Your task to perform on an android device: Go to battery settings Image 0: 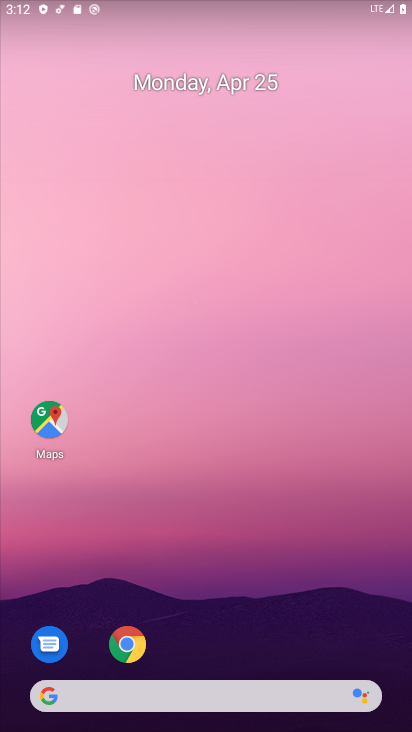
Step 0: drag from (238, 634) to (228, 148)
Your task to perform on an android device: Go to battery settings Image 1: 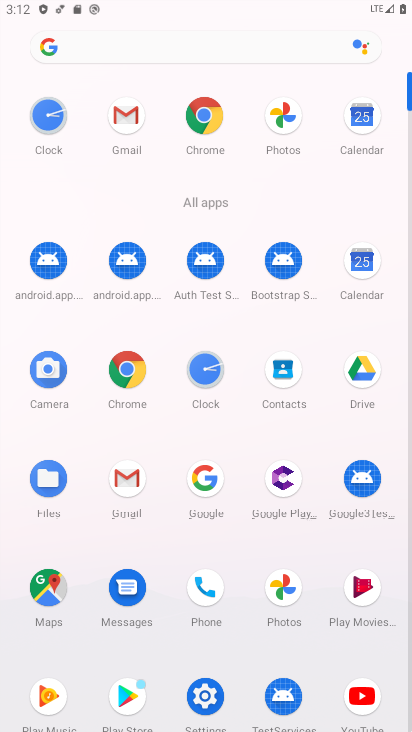
Step 1: click (204, 693)
Your task to perform on an android device: Go to battery settings Image 2: 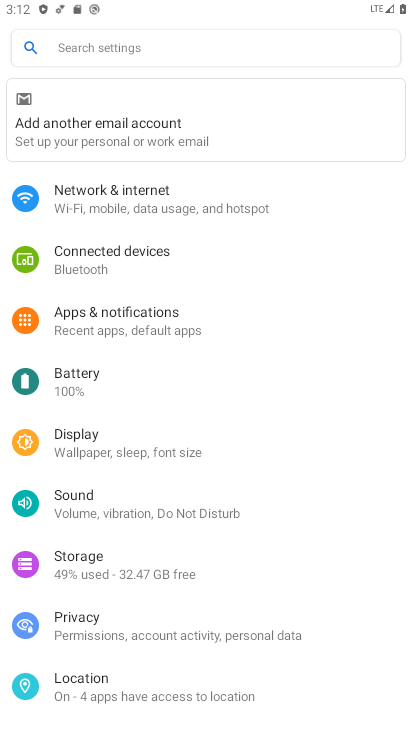
Step 2: click (114, 386)
Your task to perform on an android device: Go to battery settings Image 3: 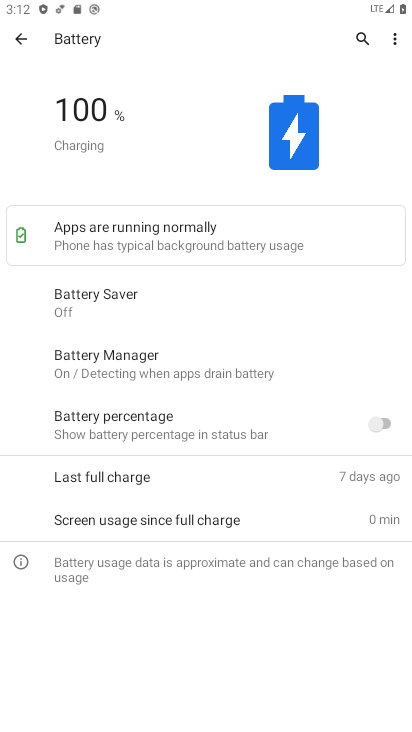
Step 3: task complete